Your task to perform on an android device: turn off wifi Image 0: 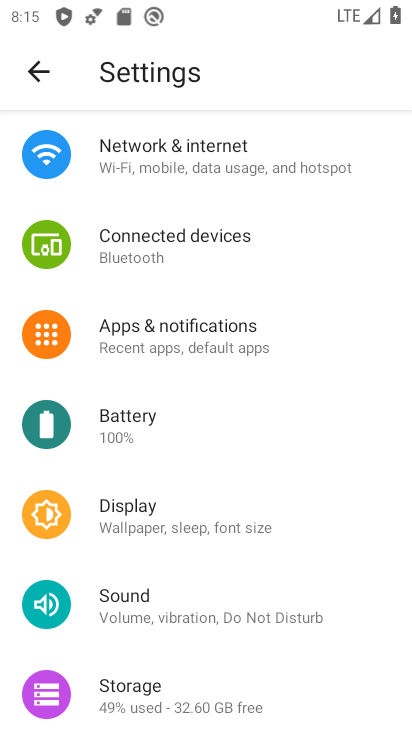
Step 0: click (185, 161)
Your task to perform on an android device: turn off wifi Image 1: 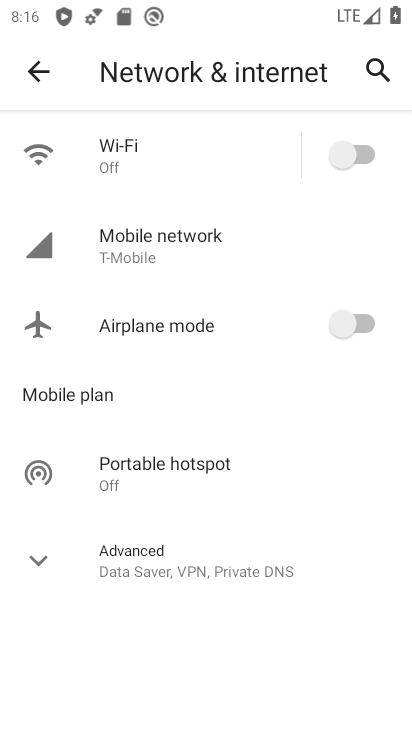
Step 1: task complete